Your task to perform on an android device: turn on showing notifications on the lock screen Image 0: 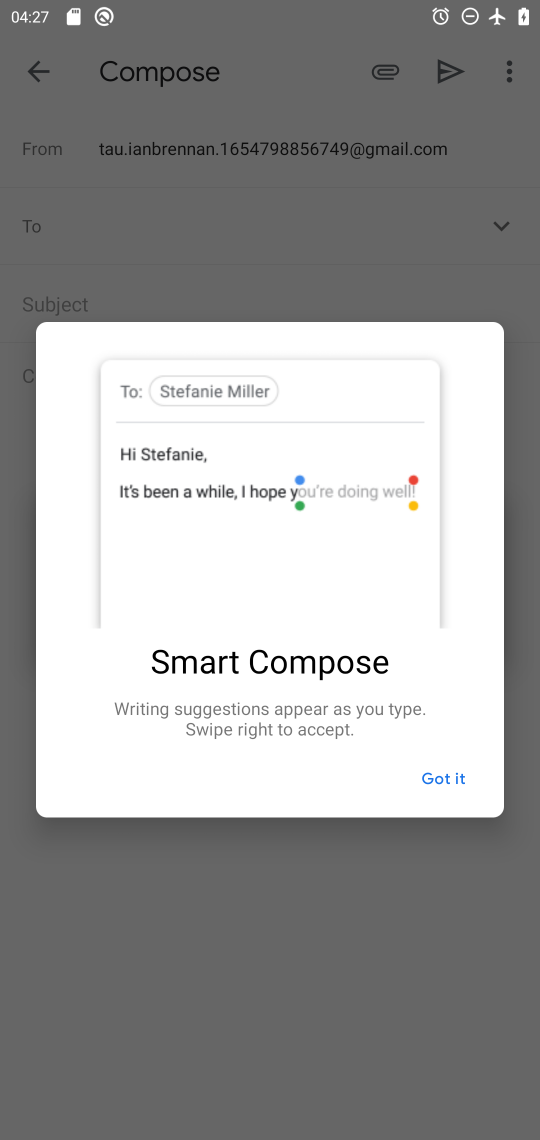
Step 0: press home button
Your task to perform on an android device: turn on showing notifications on the lock screen Image 1: 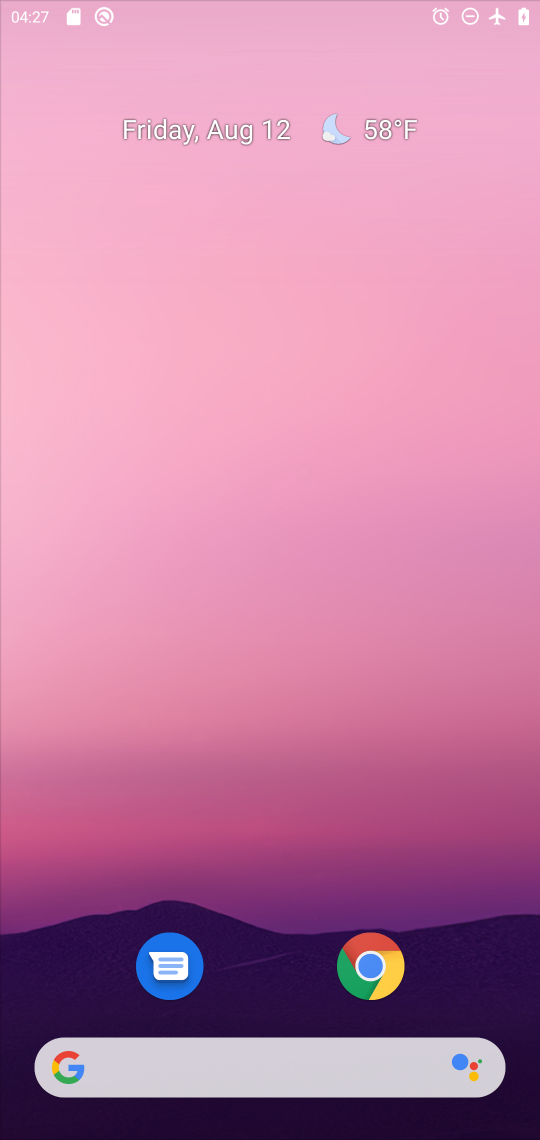
Step 1: drag from (374, 920) to (487, 163)
Your task to perform on an android device: turn on showing notifications on the lock screen Image 2: 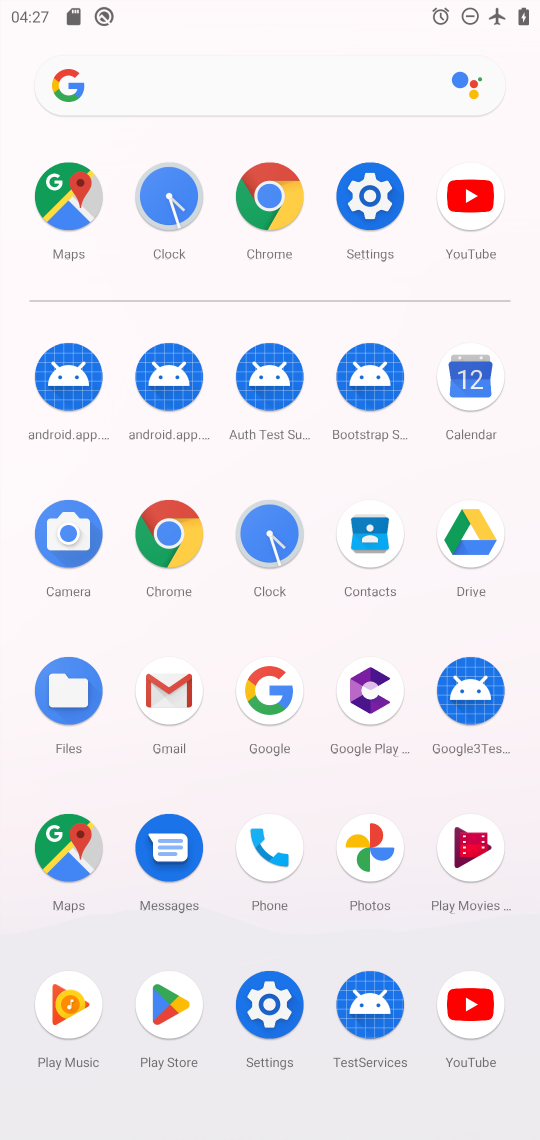
Step 2: click (367, 187)
Your task to perform on an android device: turn on showing notifications on the lock screen Image 3: 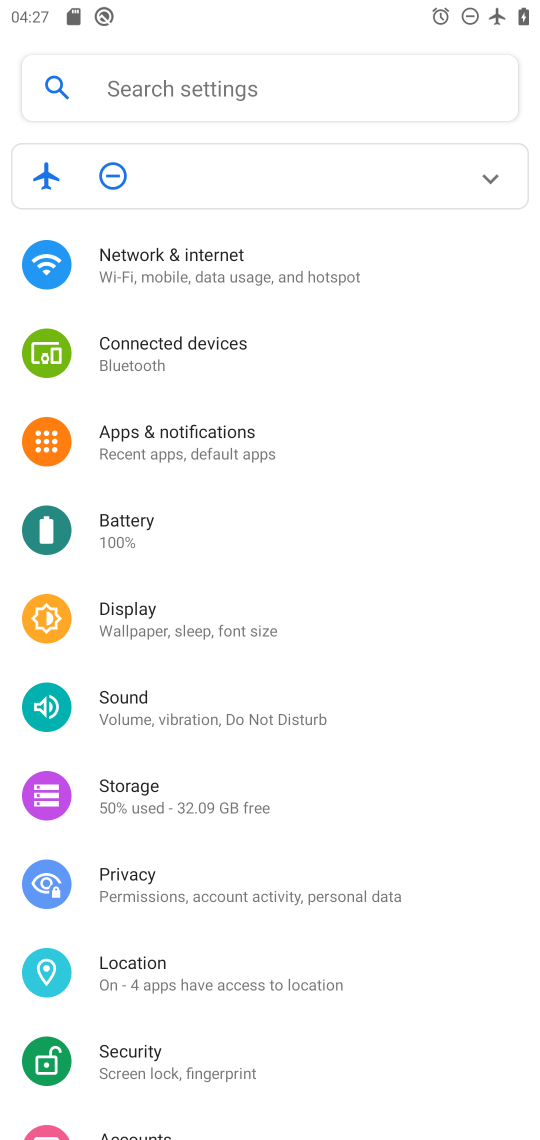
Step 3: click (237, 461)
Your task to perform on an android device: turn on showing notifications on the lock screen Image 4: 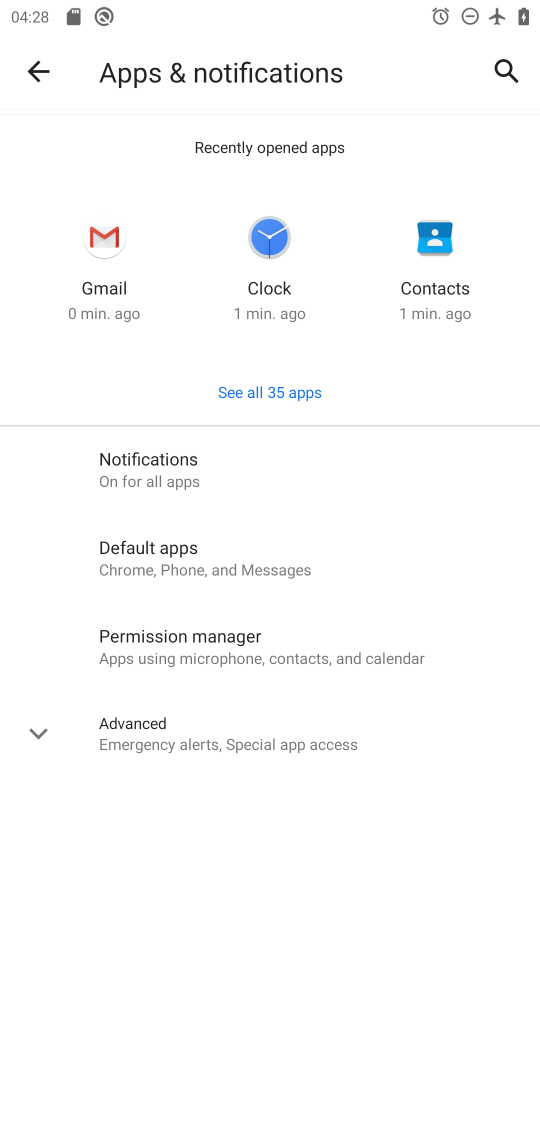
Step 4: click (197, 478)
Your task to perform on an android device: turn on showing notifications on the lock screen Image 5: 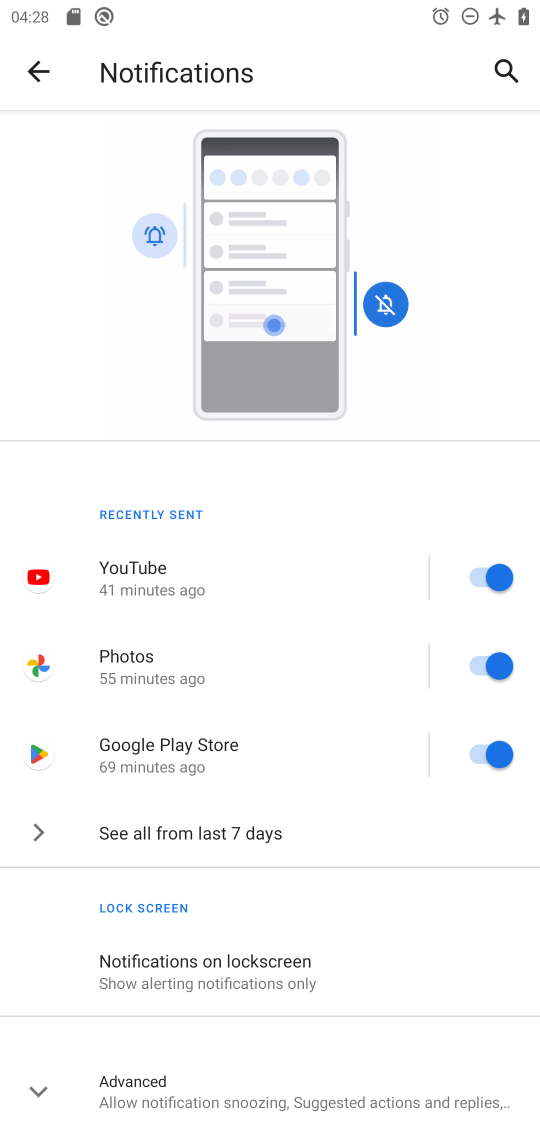
Step 5: click (217, 991)
Your task to perform on an android device: turn on showing notifications on the lock screen Image 6: 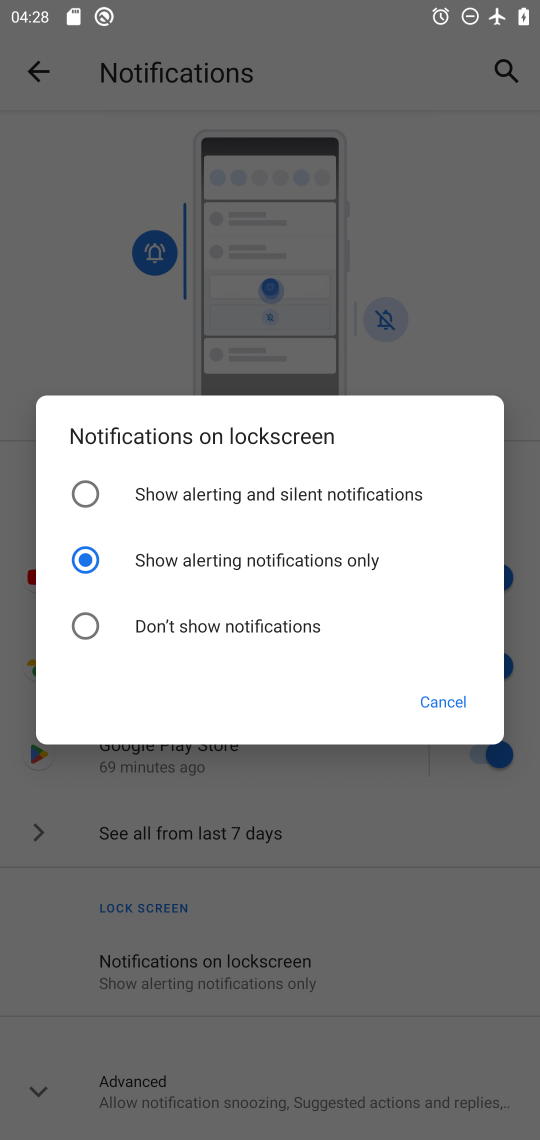
Step 6: task complete